Your task to perform on an android device: change the clock style Image 0: 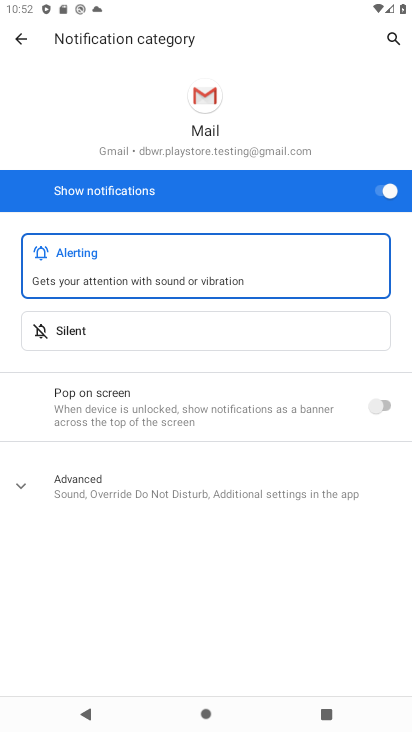
Step 0: press home button
Your task to perform on an android device: change the clock style Image 1: 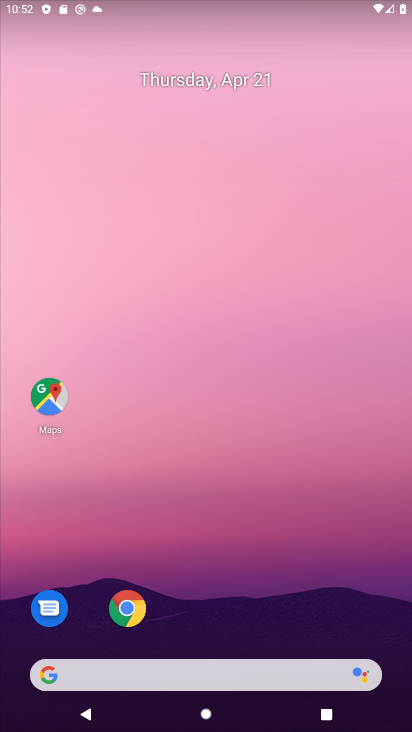
Step 1: drag from (243, 608) to (200, 14)
Your task to perform on an android device: change the clock style Image 2: 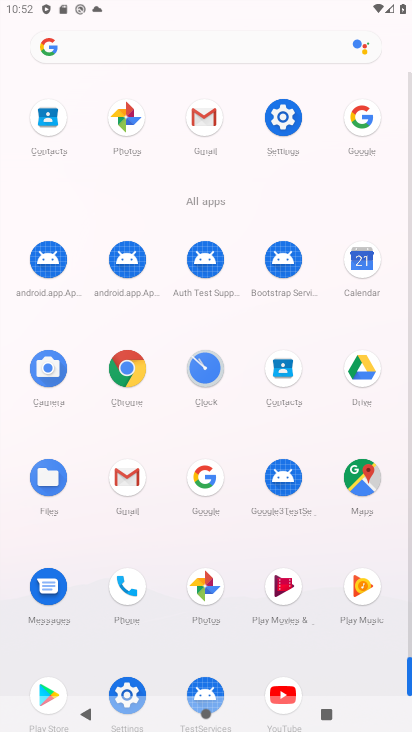
Step 2: click (204, 368)
Your task to perform on an android device: change the clock style Image 3: 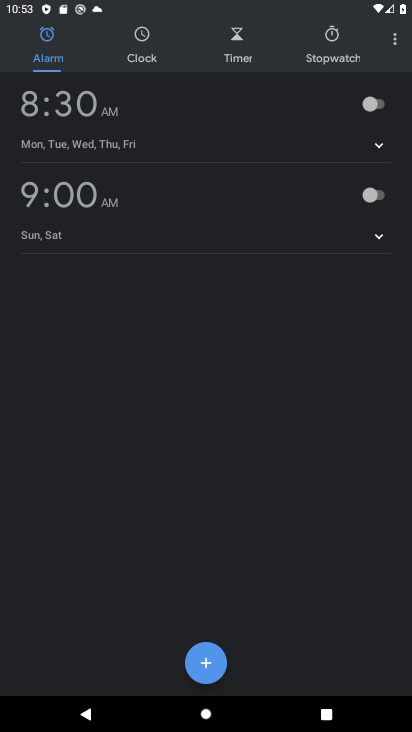
Step 3: click (395, 41)
Your task to perform on an android device: change the clock style Image 4: 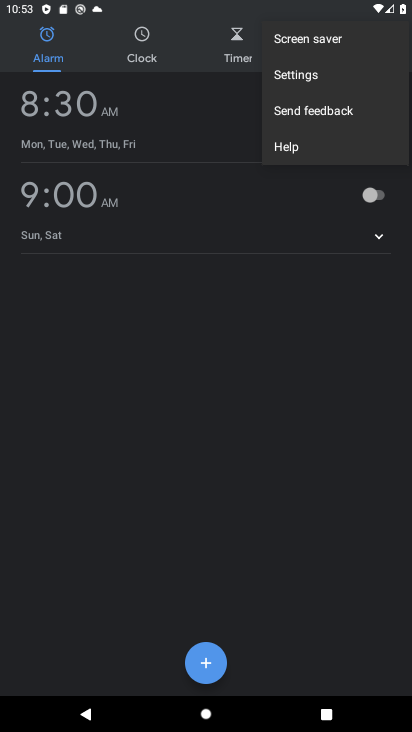
Step 4: click (342, 78)
Your task to perform on an android device: change the clock style Image 5: 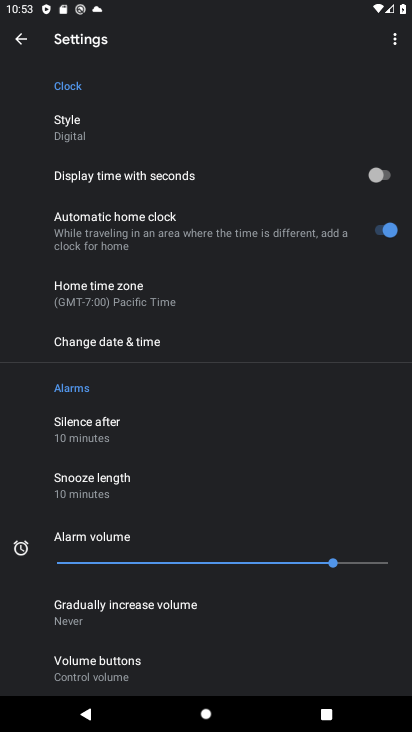
Step 5: click (80, 124)
Your task to perform on an android device: change the clock style Image 6: 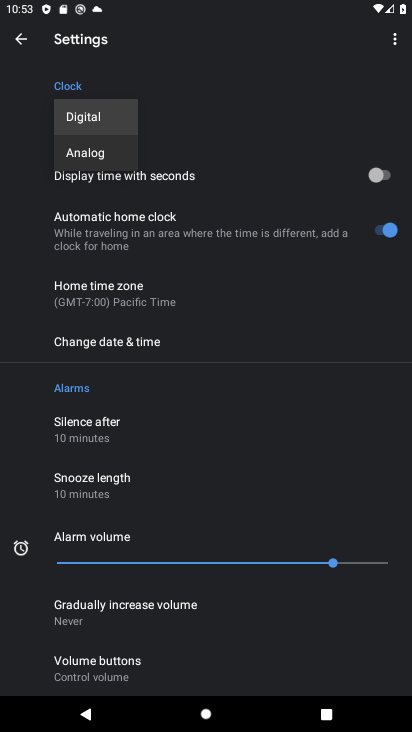
Step 6: click (106, 149)
Your task to perform on an android device: change the clock style Image 7: 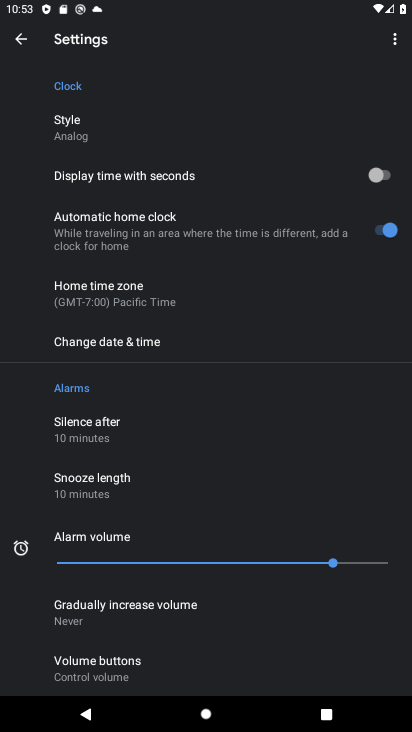
Step 7: task complete